Your task to perform on an android device: turn on airplane mode Image 0: 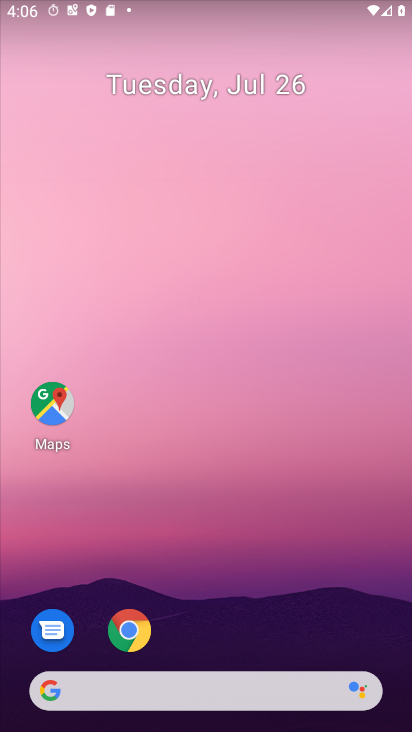
Step 0: drag from (257, 625) to (183, 123)
Your task to perform on an android device: turn on airplane mode Image 1: 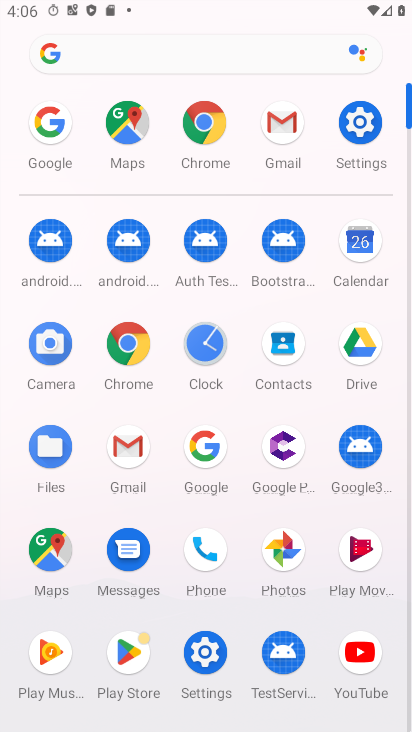
Step 1: click (367, 148)
Your task to perform on an android device: turn on airplane mode Image 2: 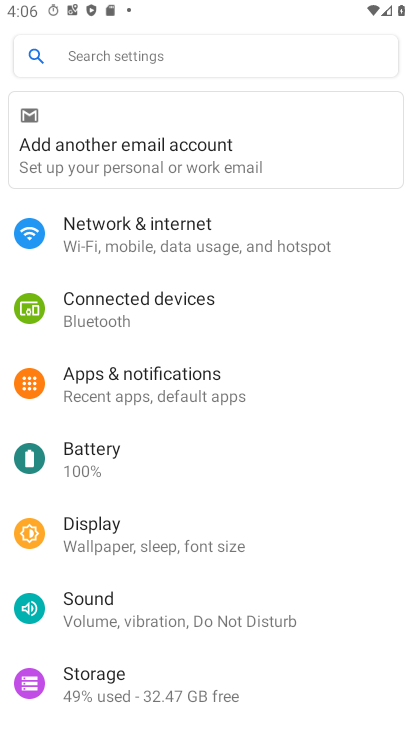
Step 2: click (231, 255)
Your task to perform on an android device: turn on airplane mode Image 3: 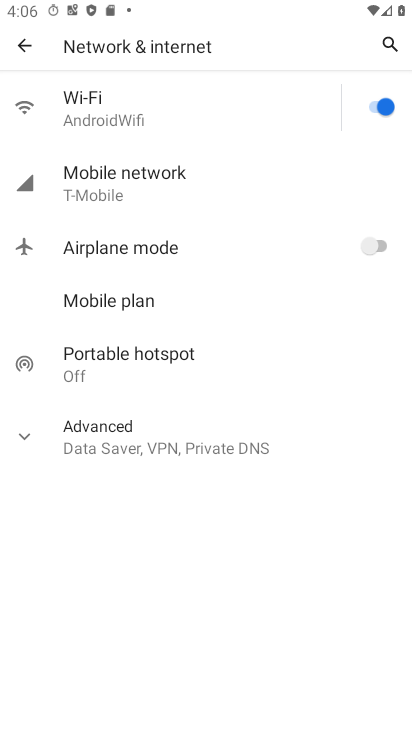
Step 3: click (376, 254)
Your task to perform on an android device: turn on airplane mode Image 4: 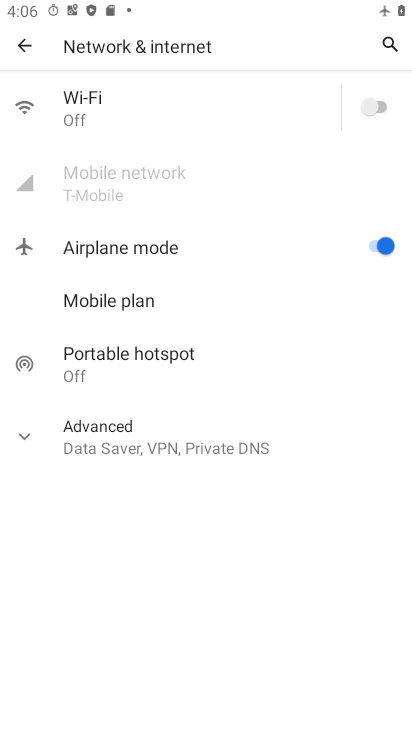
Step 4: task complete